Your task to perform on an android device: empty trash in the gmail app Image 0: 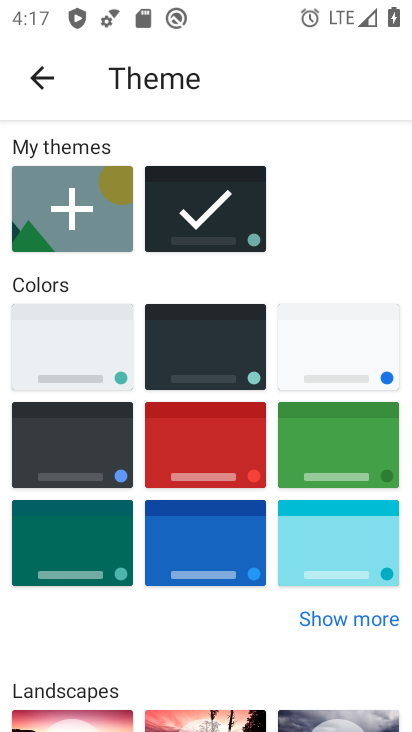
Step 0: press home button
Your task to perform on an android device: empty trash in the gmail app Image 1: 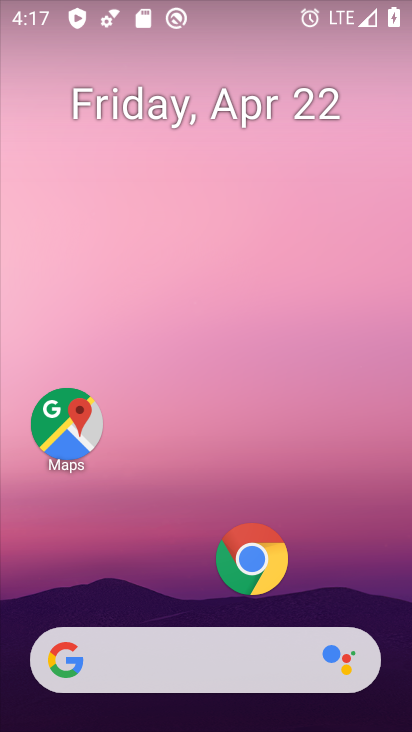
Step 1: drag from (109, 529) to (201, 6)
Your task to perform on an android device: empty trash in the gmail app Image 2: 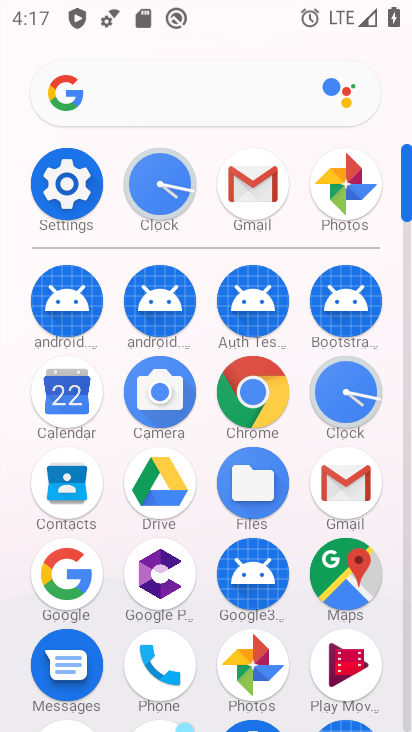
Step 2: click (263, 200)
Your task to perform on an android device: empty trash in the gmail app Image 3: 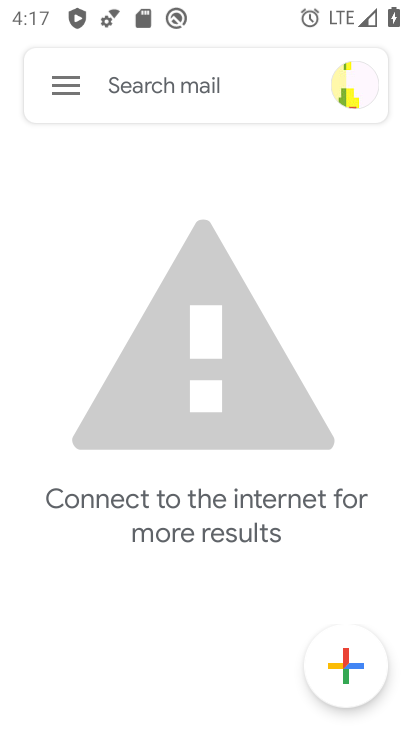
Step 3: click (62, 95)
Your task to perform on an android device: empty trash in the gmail app Image 4: 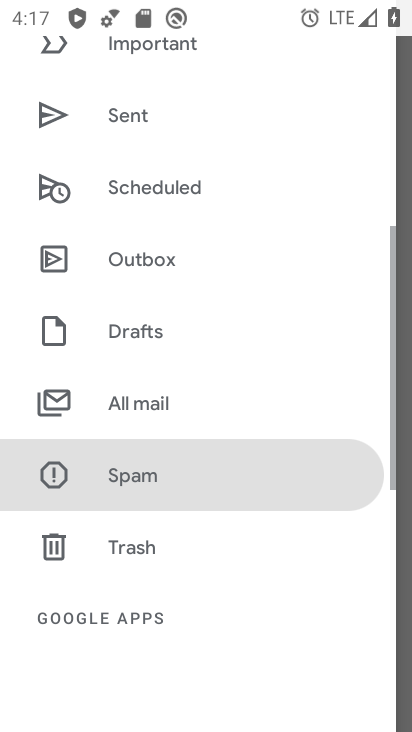
Step 4: drag from (121, 558) to (141, 327)
Your task to perform on an android device: empty trash in the gmail app Image 5: 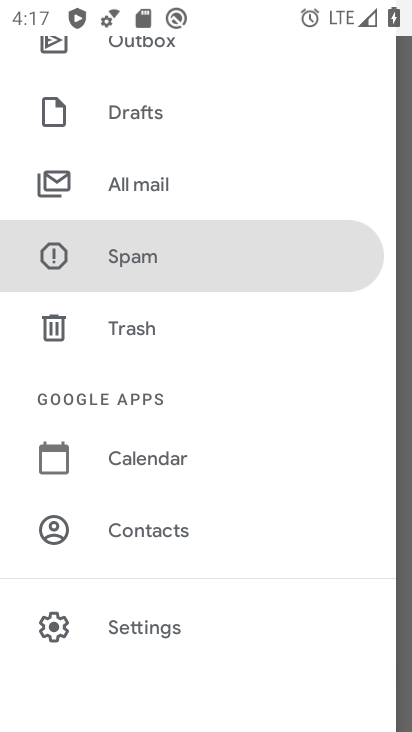
Step 5: click (105, 338)
Your task to perform on an android device: empty trash in the gmail app Image 6: 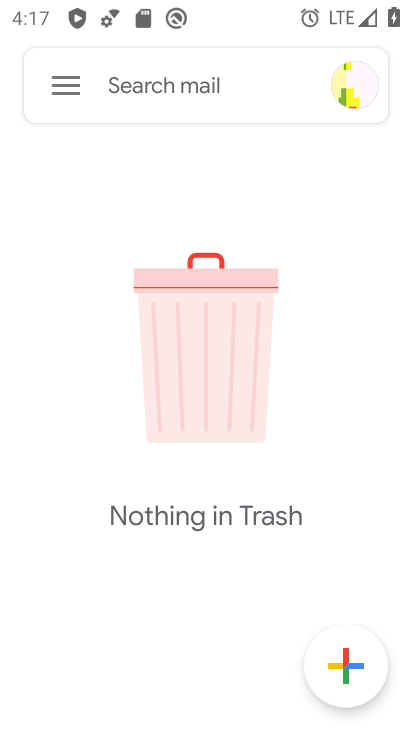
Step 6: task complete